Your task to perform on an android device: turn off notifications in google photos Image 0: 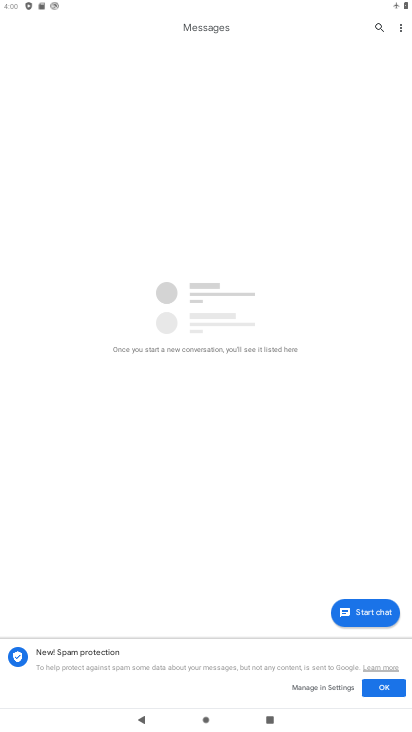
Step 0: press home button
Your task to perform on an android device: turn off notifications in google photos Image 1: 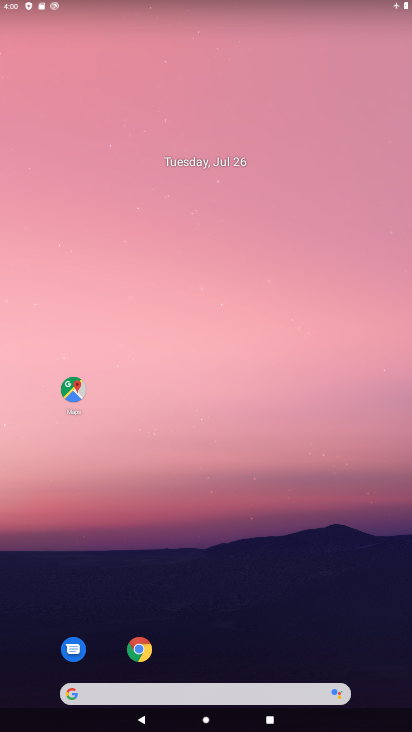
Step 1: drag from (240, 507) to (273, 147)
Your task to perform on an android device: turn off notifications in google photos Image 2: 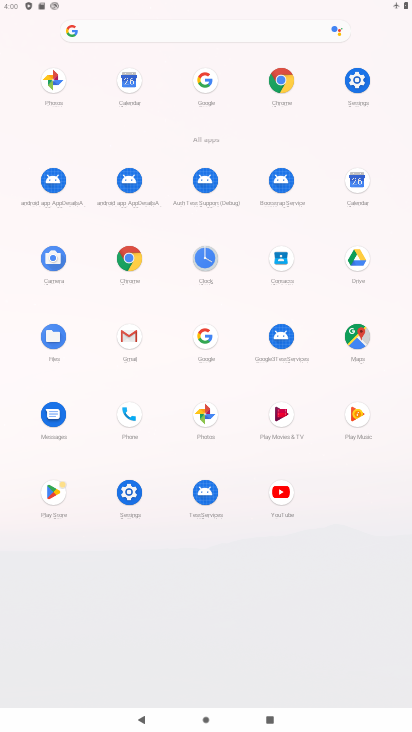
Step 2: click (215, 418)
Your task to perform on an android device: turn off notifications in google photos Image 3: 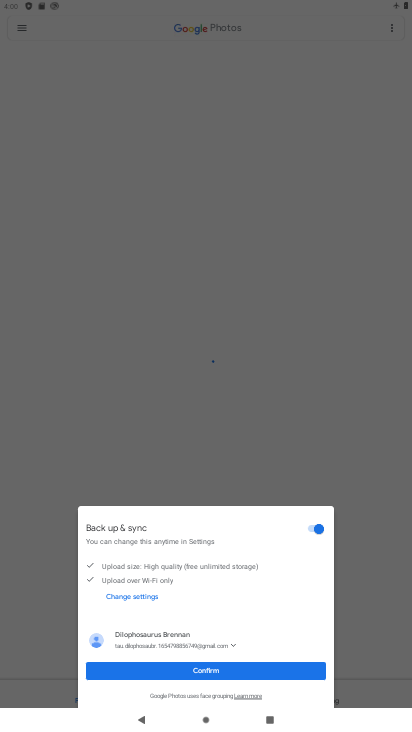
Step 3: press home button
Your task to perform on an android device: turn off notifications in google photos Image 4: 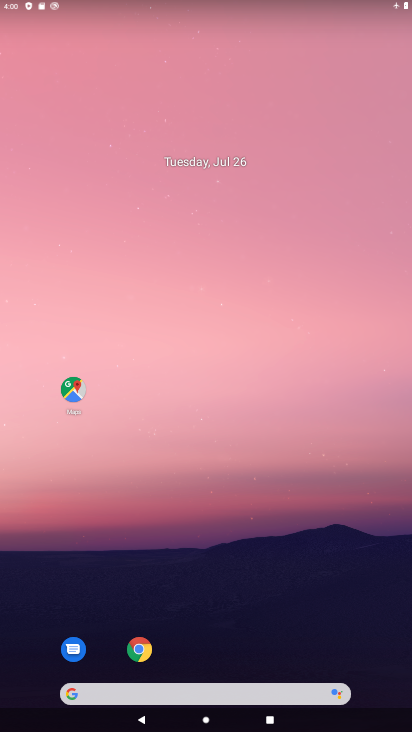
Step 4: drag from (201, 666) to (205, 188)
Your task to perform on an android device: turn off notifications in google photos Image 5: 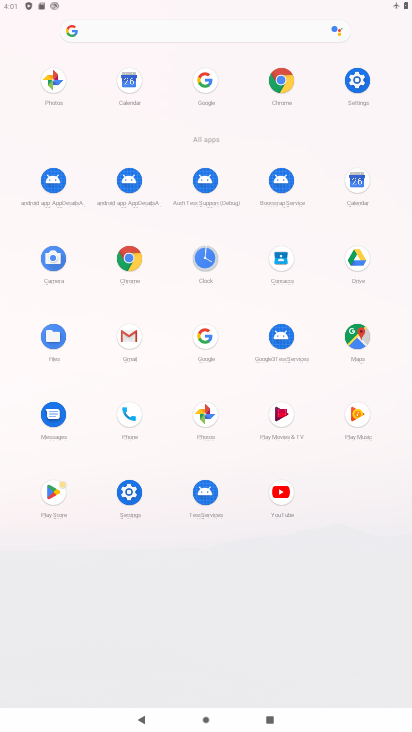
Step 5: click (66, 96)
Your task to perform on an android device: turn off notifications in google photos Image 6: 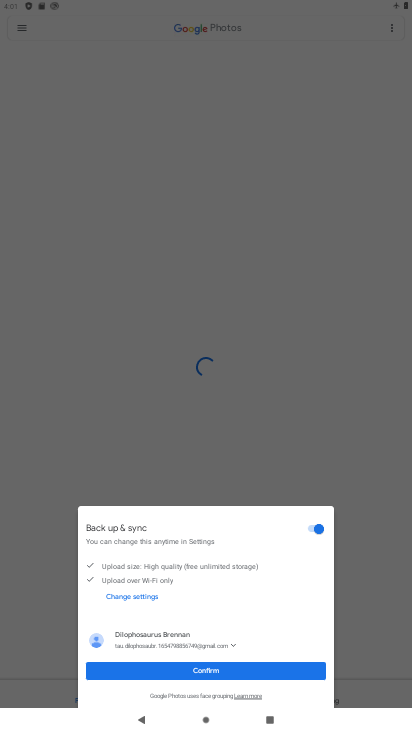
Step 6: click (273, 673)
Your task to perform on an android device: turn off notifications in google photos Image 7: 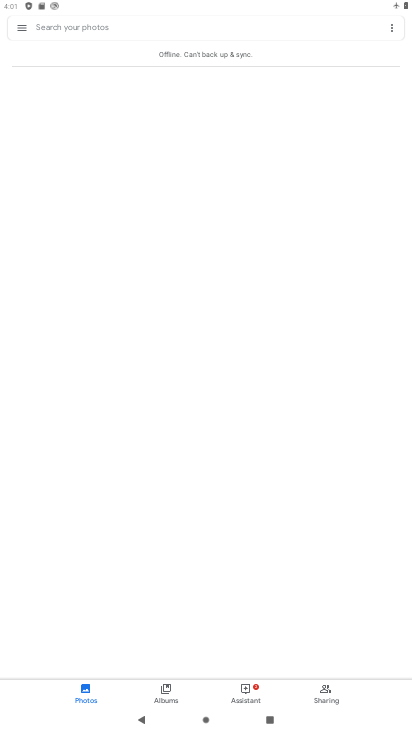
Step 7: click (18, 32)
Your task to perform on an android device: turn off notifications in google photos Image 8: 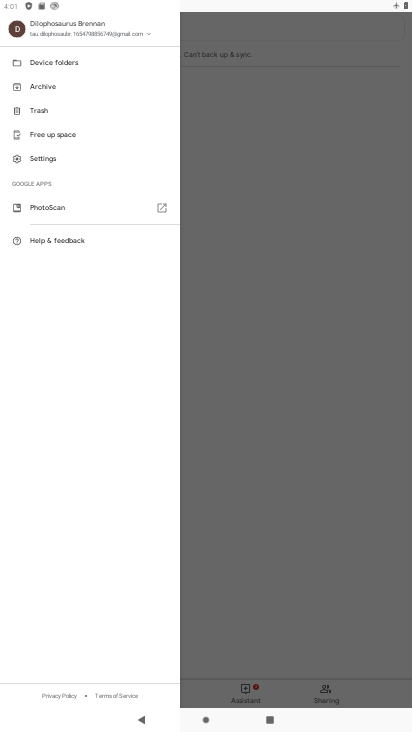
Step 8: click (56, 168)
Your task to perform on an android device: turn off notifications in google photos Image 9: 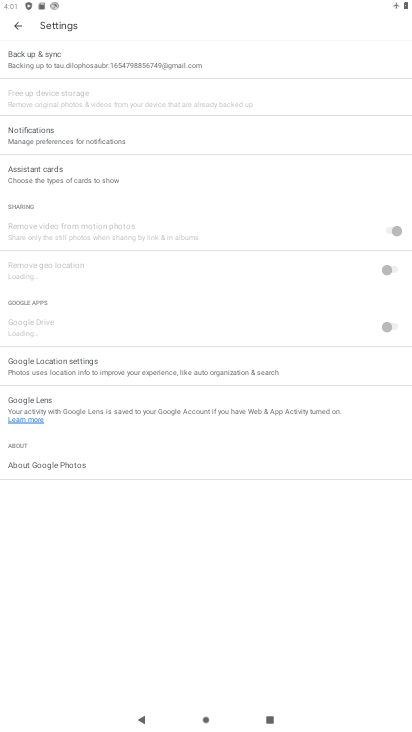
Step 9: click (109, 151)
Your task to perform on an android device: turn off notifications in google photos Image 10: 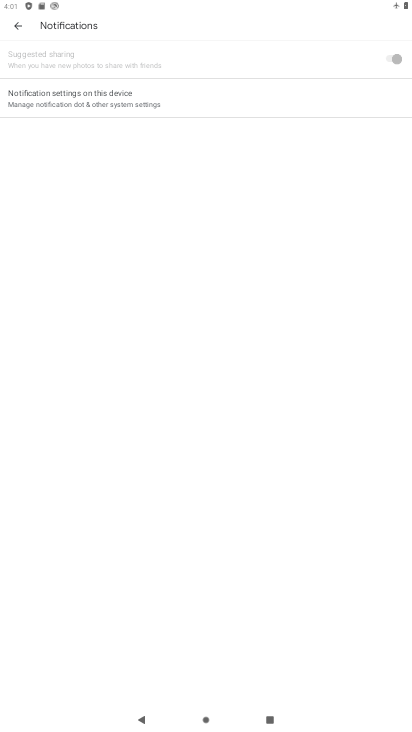
Step 10: click (91, 95)
Your task to perform on an android device: turn off notifications in google photos Image 11: 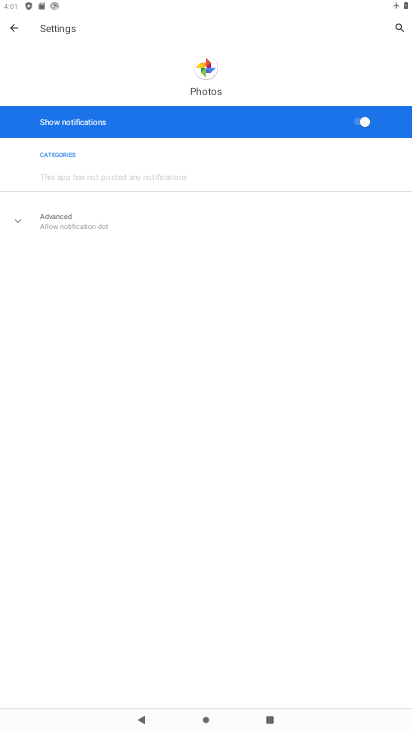
Step 11: click (358, 115)
Your task to perform on an android device: turn off notifications in google photos Image 12: 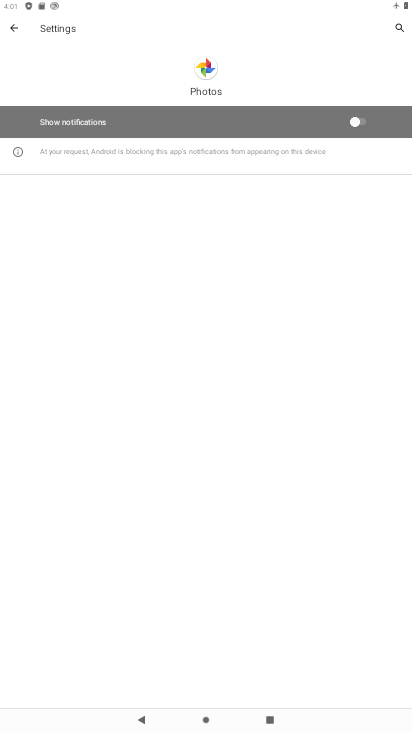
Step 12: task complete